Your task to perform on an android device: check android version Image 0: 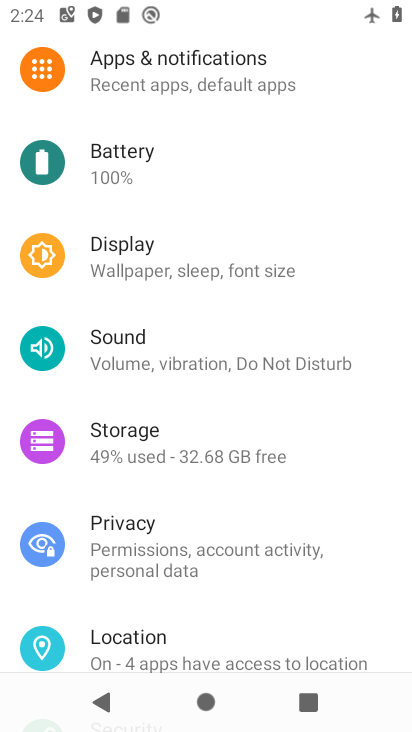
Step 0: press back button
Your task to perform on an android device: check android version Image 1: 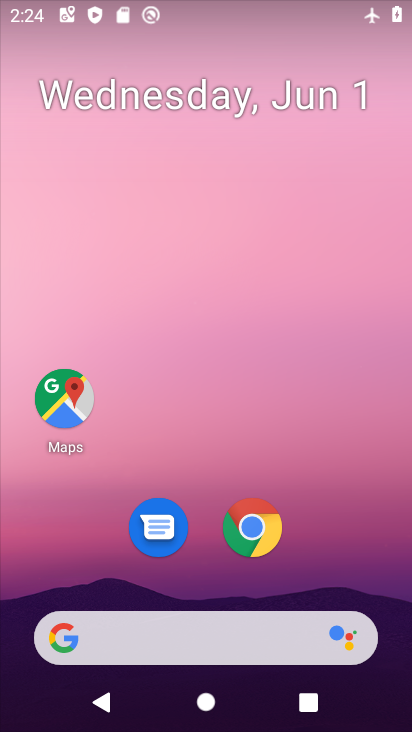
Step 1: drag from (288, 585) to (223, 52)
Your task to perform on an android device: check android version Image 2: 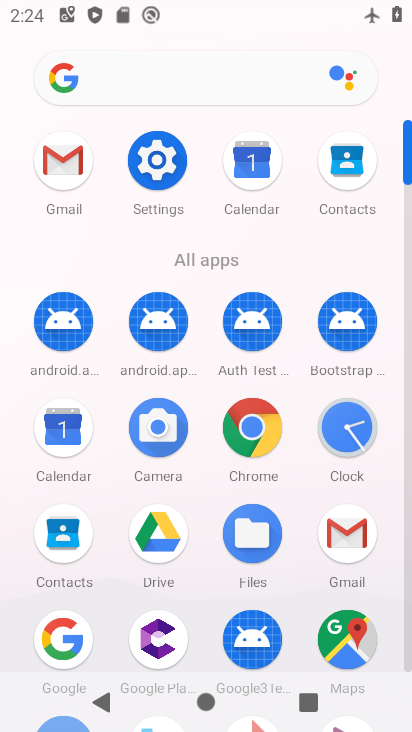
Step 2: click (157, 158)
Your task to perform on an android device: check android version Image 3: 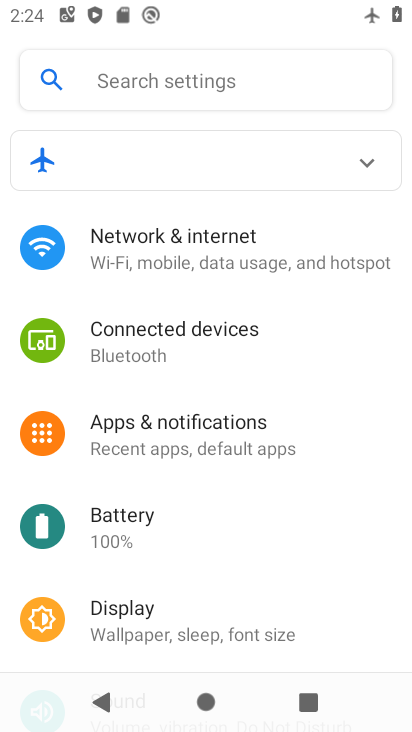
Step 3: drag from (194, 501) to (221, 401)
Your task to perform on an android device: check android version Image 4: 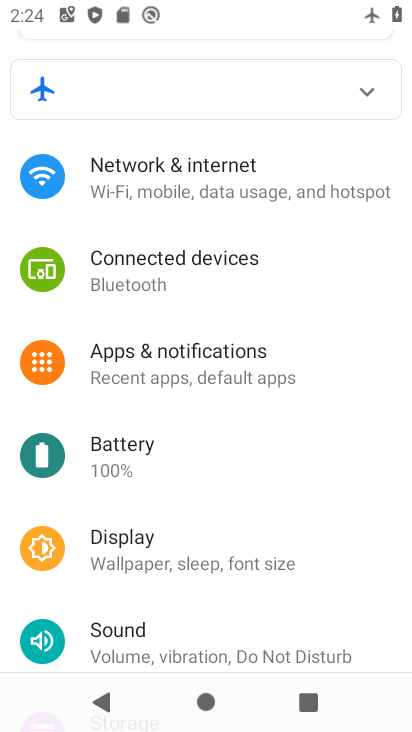
Step 4: drag from (150, 492) to (180, 429)
Your task to perform on an android device: check android version Image 5: 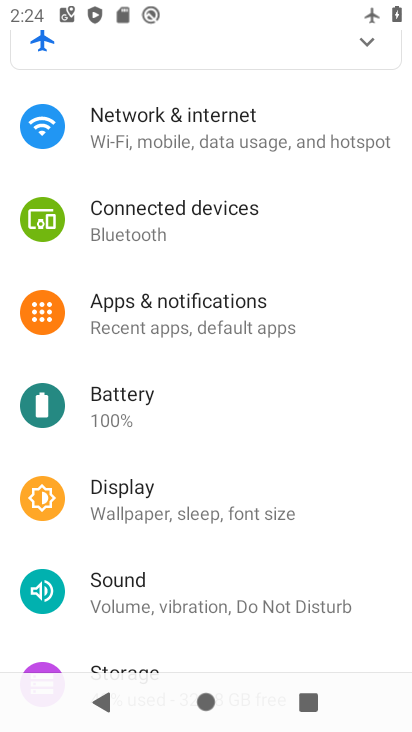
Step 5: drag from (159, 450) to (202, 361)
Your task to perform on an android device: check android version Image 6: 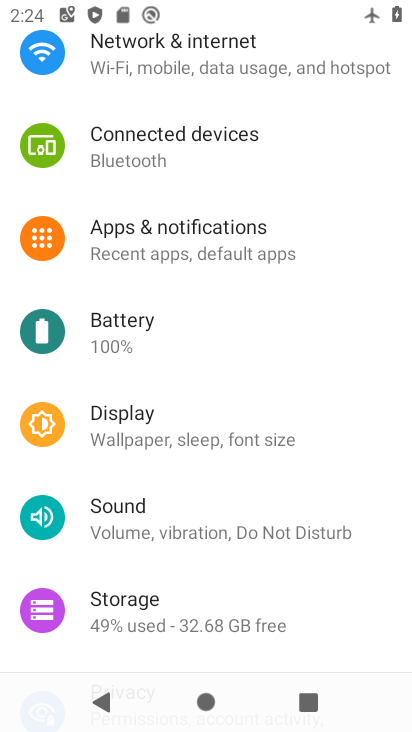
Step 6: drag from (146, 461) to (134, 388)
Your task to perform on an android device: check android version Image 7: 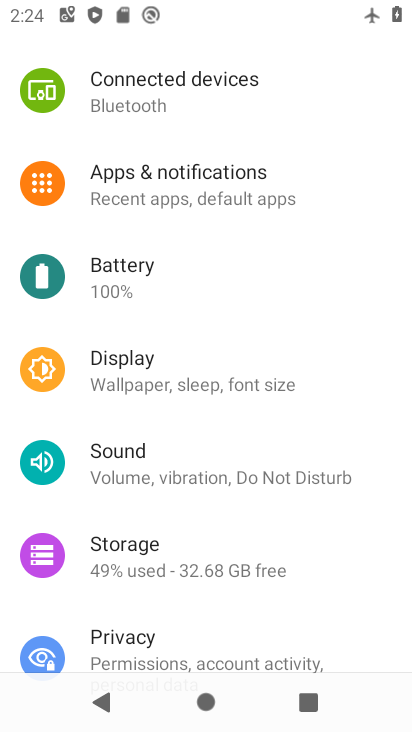
Step 7: drag from (130, 500) to (167, 397)
Your task to perform on an android device: check android version Image 8: 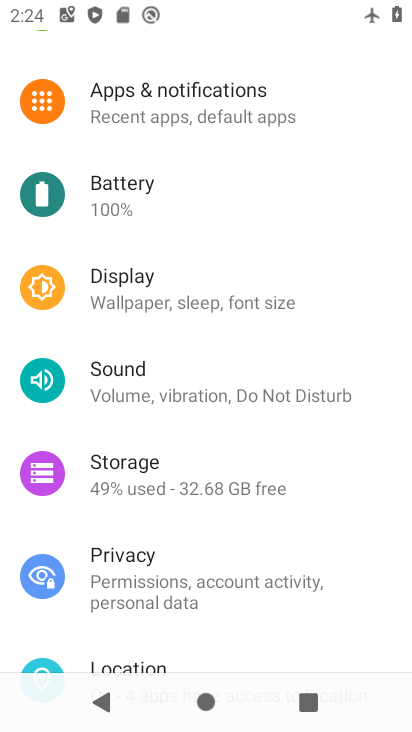
Step 8: drag from (162, 517) to (196, 415)
Your task to perform on an android device: check android version Image 9: 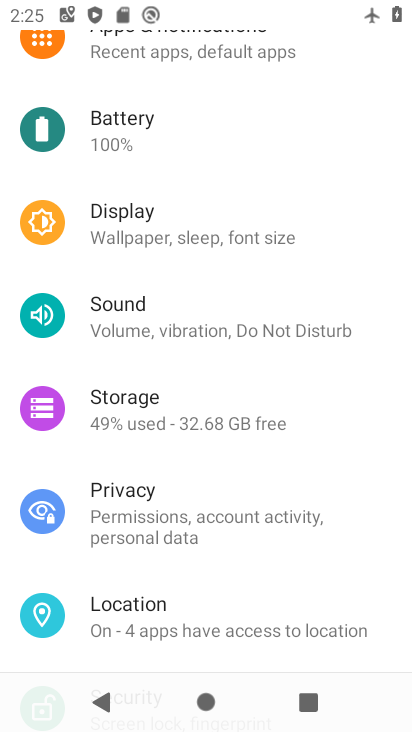
Step 9: drag from (235, 575) to (246, 403)
Your task to perform on an android device: check android version Image 10: 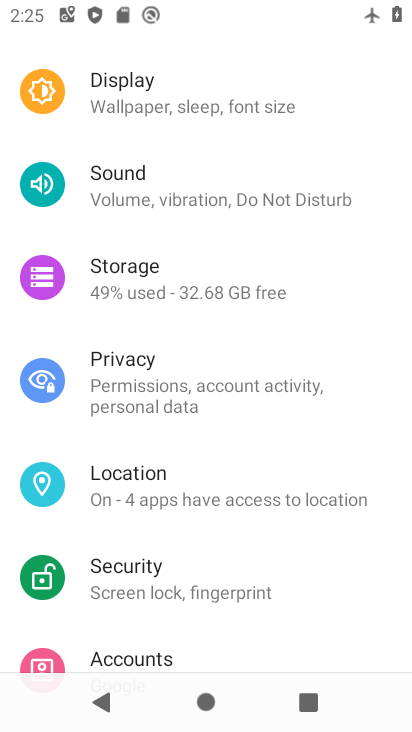
Step 10: drag from (177, 537) to (255, 420)
Your task to perform on an android device: check android version Image 11: 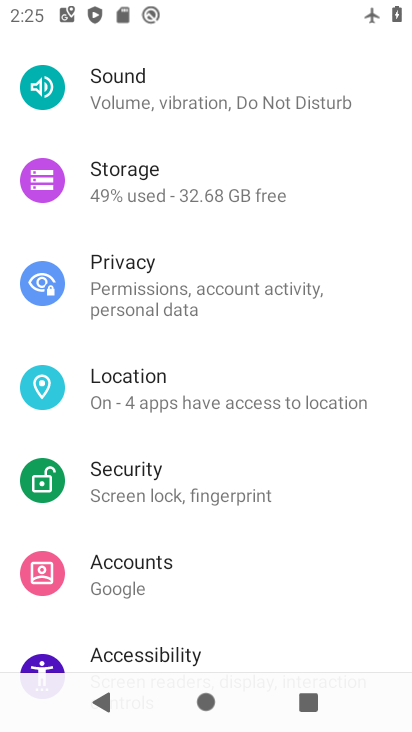
Step 11: drag from (186, 564) to (274, 436)
Your task to perform on an android device: check android version Image 12: 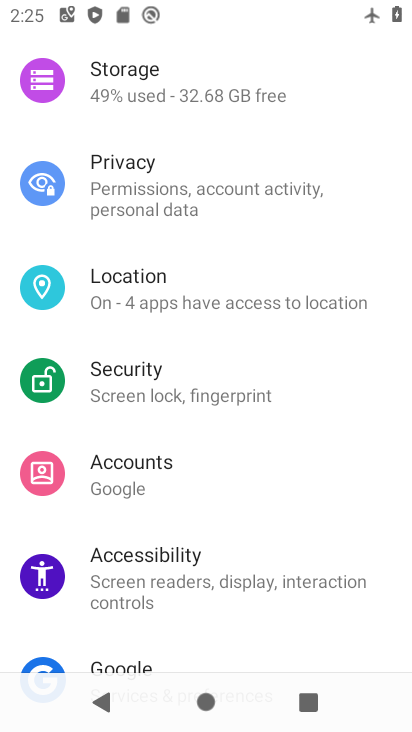
Step 12: drag from (188, 526) to (238, 447)
Your task to perform on an android device: check android version Image 13: 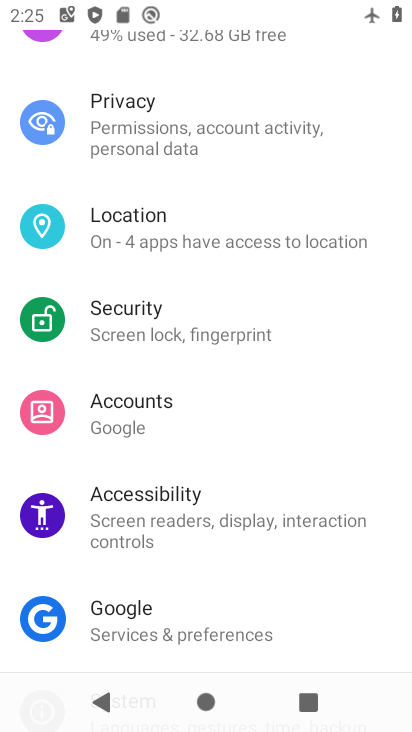
Step 13: drag from (190, 575) to (271, 460)
Your task to perform on an android device: check android version Image 14: 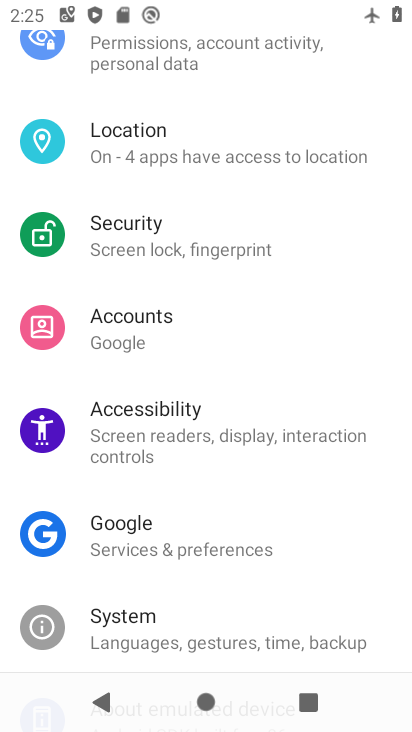
Step 14: drag from (182, 598) to (215, 469)
Your task to perform on an android device: check android version Image 15: 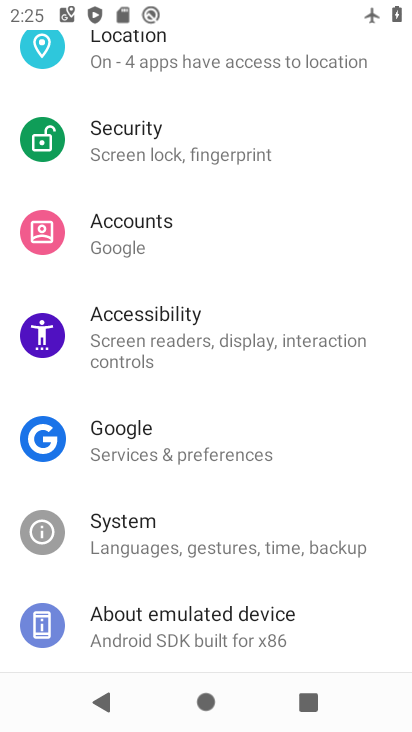
Step 15: click (127, 623)
Your task to perform on an android device: check android version Image 16: 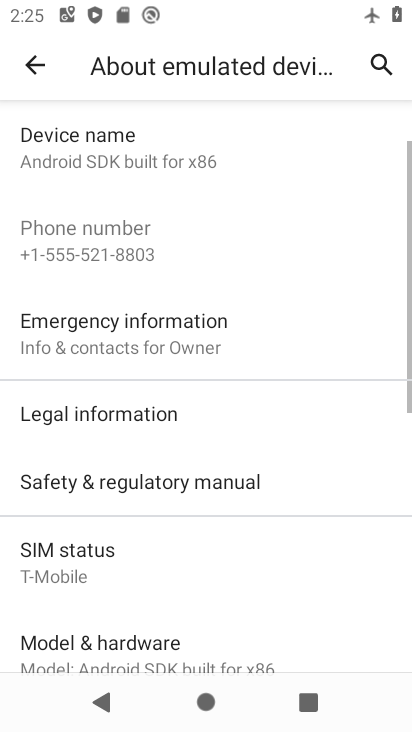
Step 16: drag from (215, 561) to (203, 416)
Your task to perform on an android device: check android version Image 17: 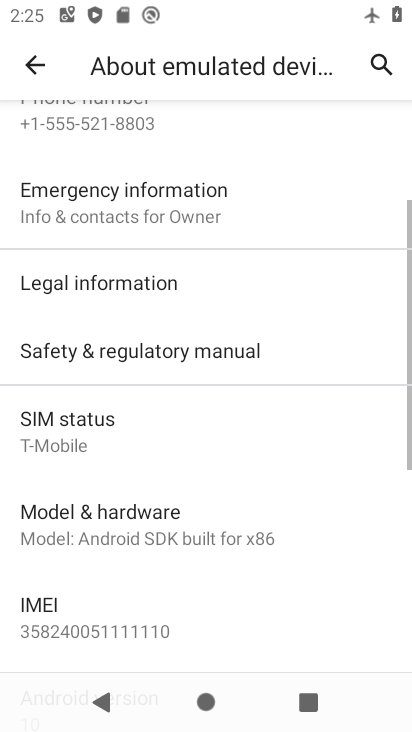
Step 17: drag from (178, 594) to (183, 424)
Your task to perform on an android device: check android version Image 18: 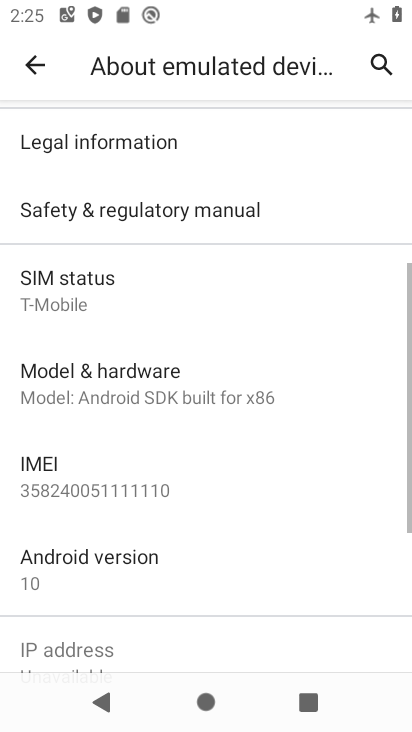
Step 18: click (149, 554)
Your task to perform on an android device: check android version Image 19: 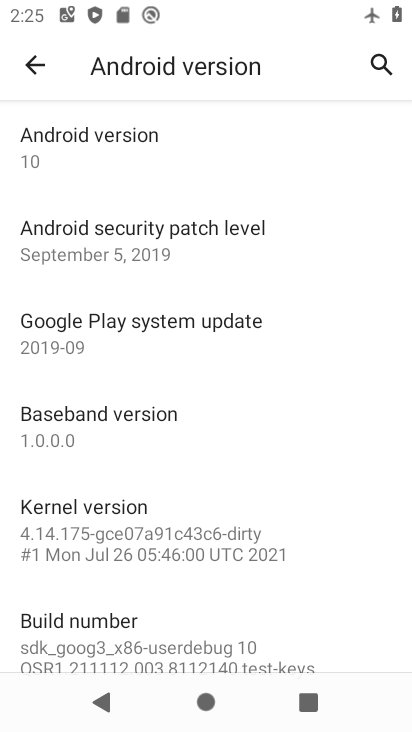
Step 19: task complete